Your task to perform on an android device: Search for sushi restaurants on Maps Image 0: 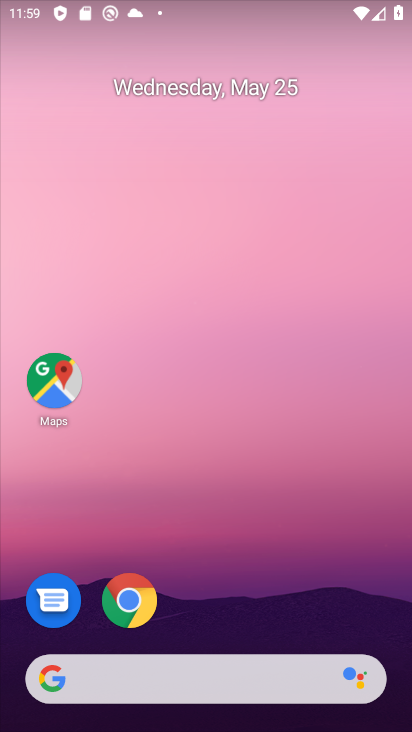
Step 0: drag from (219, 387) to (255, 183)
Your task to perform on an android device: Search for sushi restaurants on Maps Image 1: 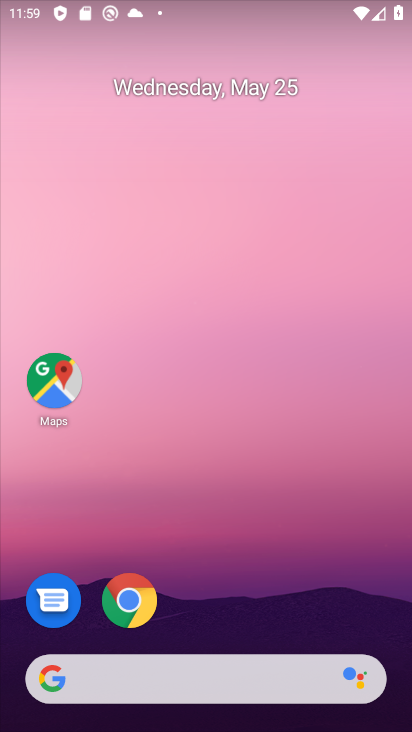
Step 1: drag from (252, 534) to (289, 90)
Your task to perform on an android device: Search for sushi restaurants on Maps Image 2: 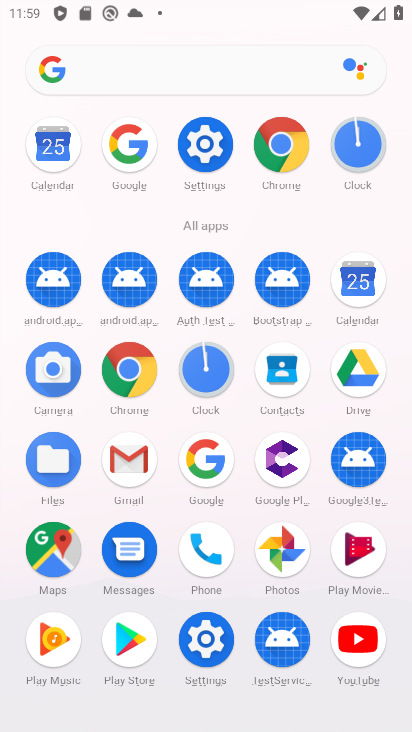
Step 2: click (61, 542)
Your task to perform on an android device: Search for sushi restaurants on Maps Image 3: 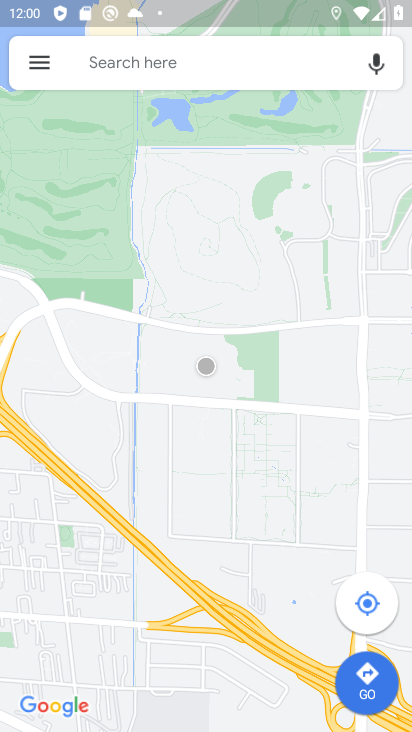
Step 3: click (210, 69)
Your task to perform on an android device: Search for sushi restaurants on Maps Image 4: 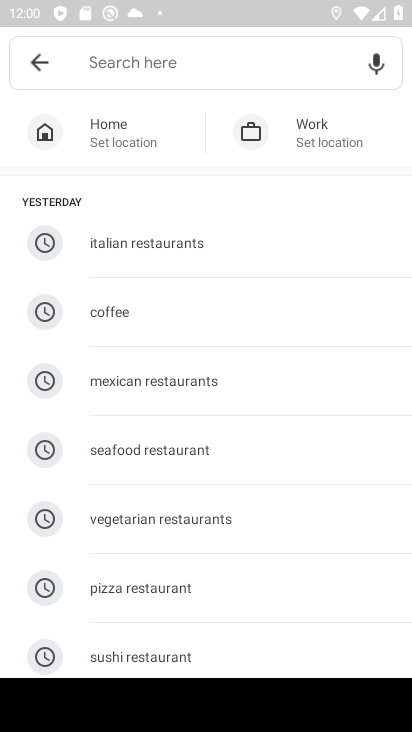
Step 4: type "sushi restaurants"
Your task to perform on an android device: Search for sushi restaurants on Maps Image 5: 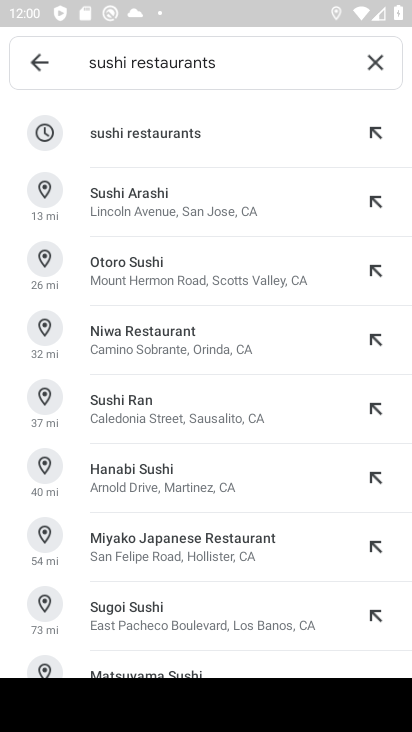
Step 5: click (183, 135)
Your task to perform on an android device: Search for sushi restaurants on Maps Image 6: 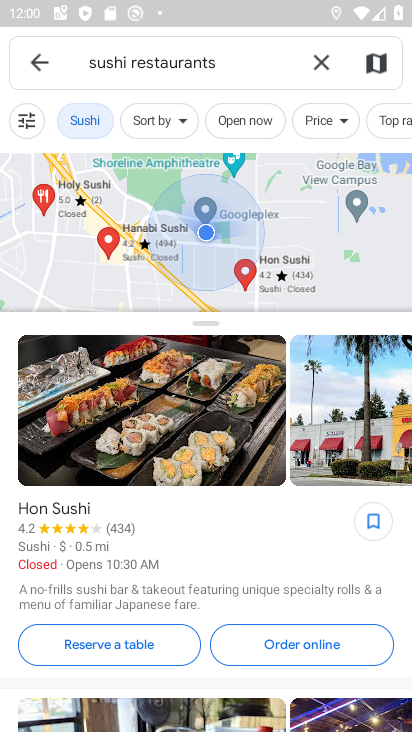
Step 6: task complete